Your task to perform on an android device: What's the weather going to be this weekend? Image 0: 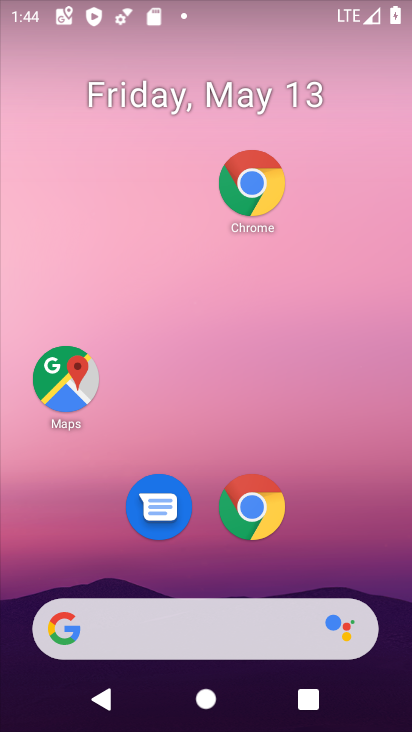
Step 0: click (348, 159)
Your task to perform on an android device: What's the weather going to be this weekend? Image 1: 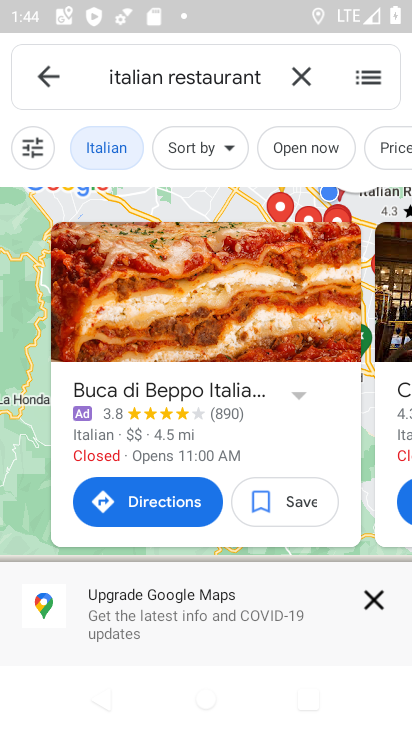
Step 1: click (42, 75)
Your task to perform on an android device: What's the weather going to be this weekend? Image 2: 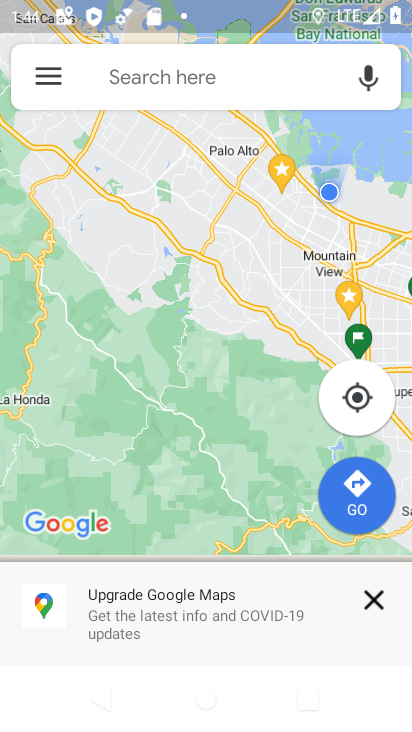
Step 2: press home button
Your task to perform on an android device: What's the weather going to be this weekend? Image 3: 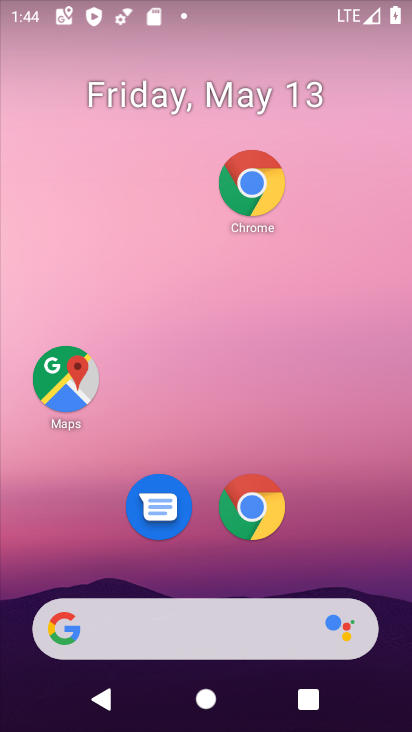
Step 3: drag from (38, 178) to (405, 326)
Your task to perform on an android device: What's the weather going to be this weekend? Image 4: 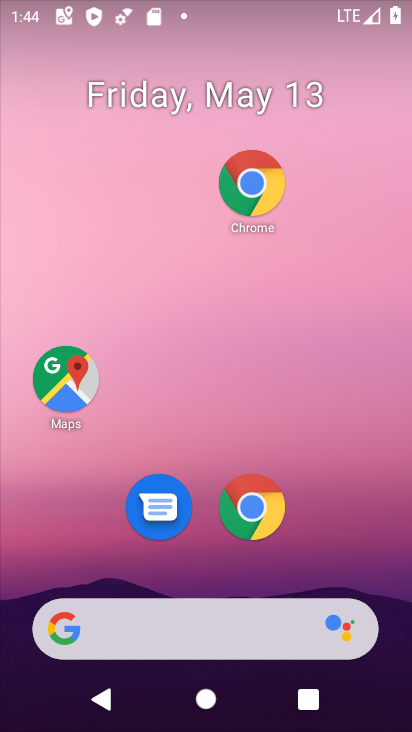
Step 4: drag from (27, 268) to (391, 451)
Your task to perform on an android device: What's the weather going to be this weekend? Image 5: 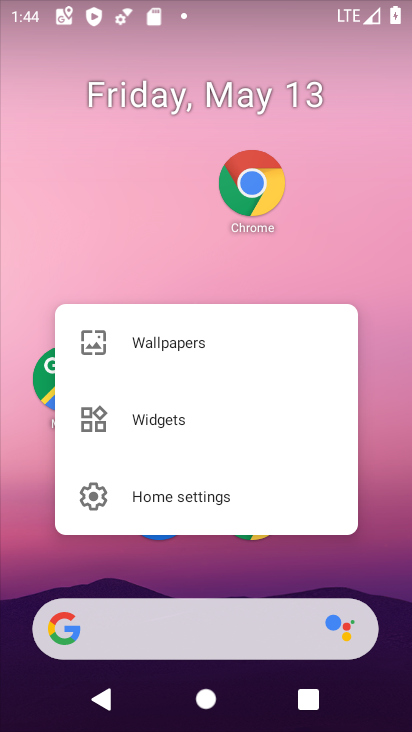
Step 5: drag from (80, 212) to (409, 382)
Your task to perform on an android device: What's the weather going to be this weekend? Image 6: 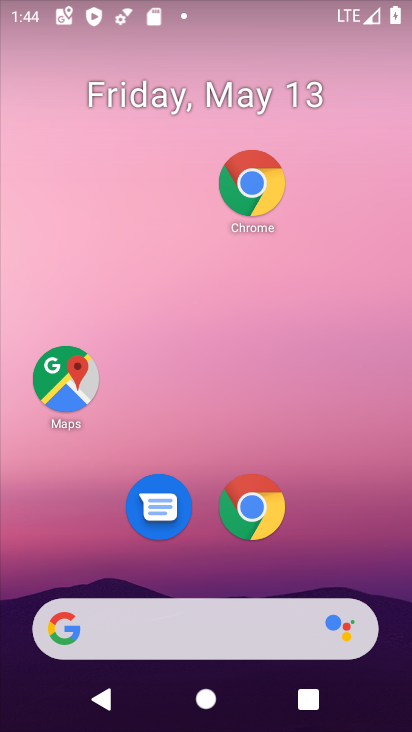
Step 6: drag from (45, 193) to (411, 396)
Your task to perform on an android device: What's the weather going to be this weekend? Image 7: 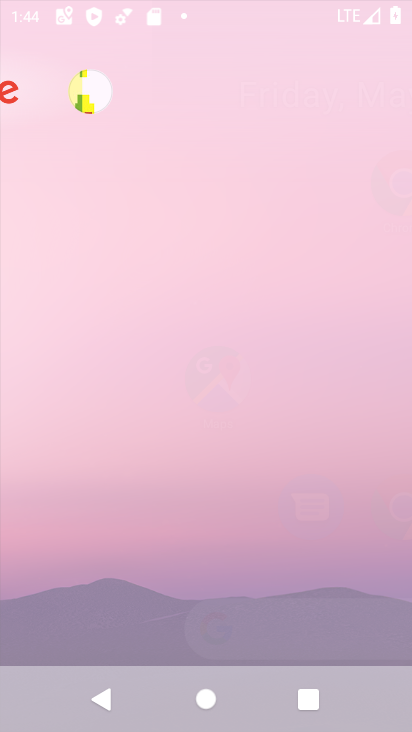
Step 7: drag from (122, 197) to (365, 291)
Your task to perform on an android device: What's the weather going to be this weekend? Image 8: 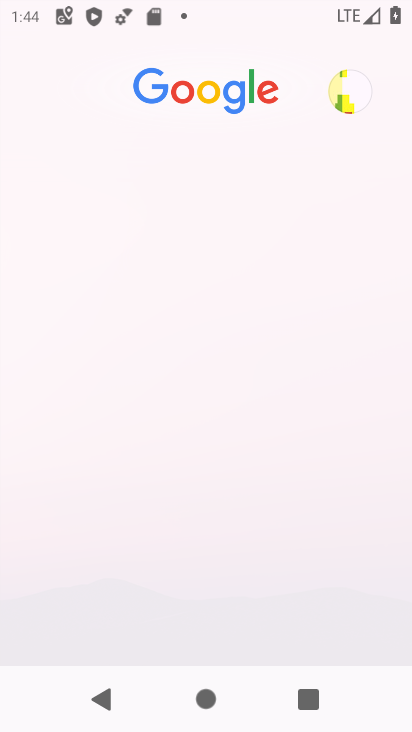
Step 8: click (343, 403)
Your task to perform on an android device: What's the weather going to be this weekend? Image 9: 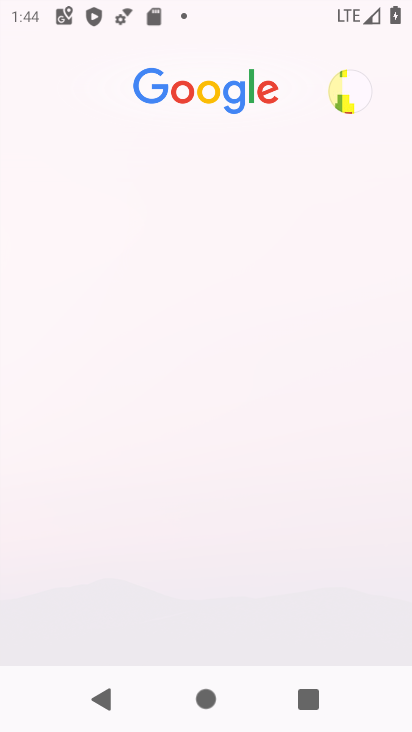
Step 9: click (385, 440)
Your task to perform on an android device: What's the weather going to be this weekend? Image 10: 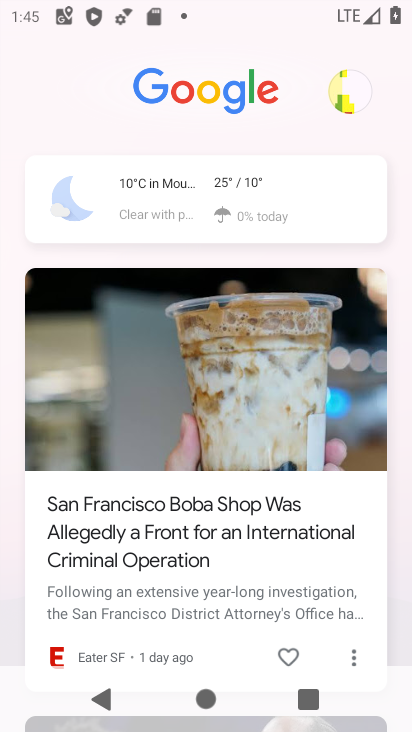
Step 10: drag from (194, 507) to (192, 347)
Your task to perform on an android device: What's the weather going to be this weekend? Image 11: 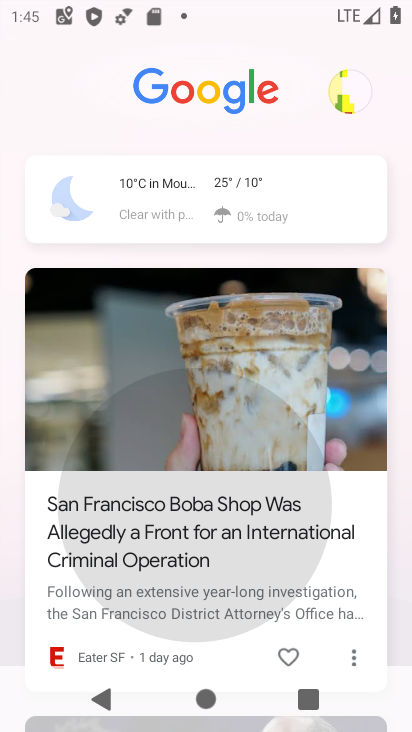
Step 11: drag from (232, 430) to (229, 297)
Your task to perform on an android device: What's the weather going to be this weekend? Image 12: 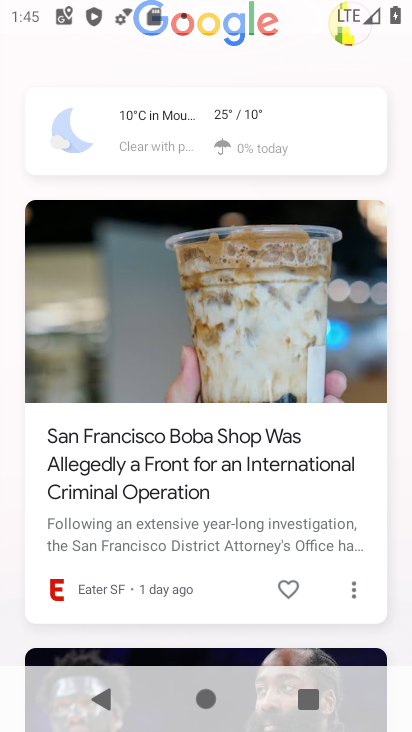
Step 12: click (246, 199)
Your task to perform on an android device: What's the weather going to be this weekend? Image 13: 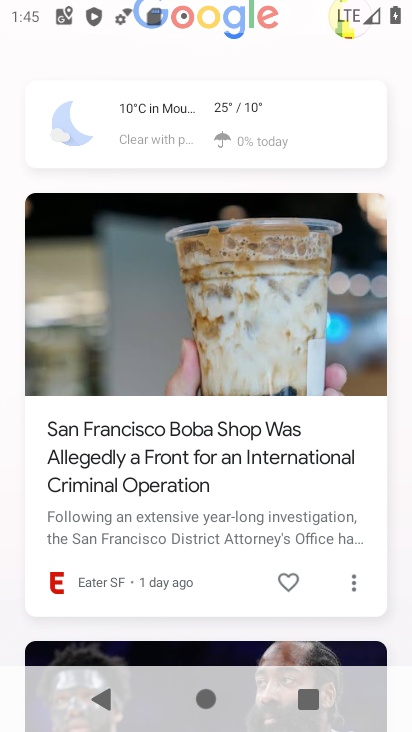
Step 13: click (205, 323)
Your task to perform on an android device: What's the weather going to be this weekend? Image 14: 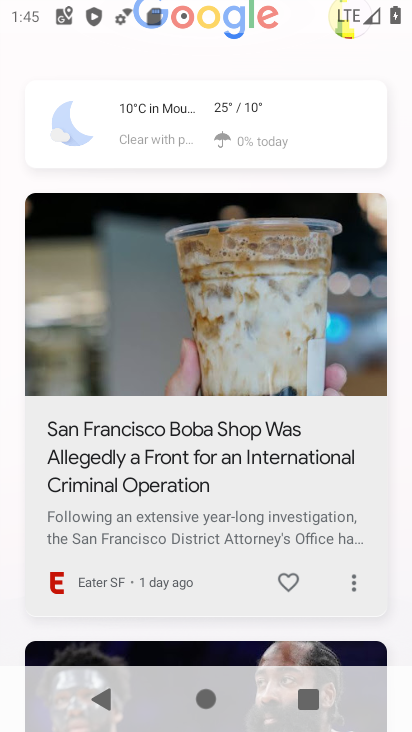
Step 14: click (256, 307)
Your task to perform on an android device: What's the weather going to be this weekend? Image 15: 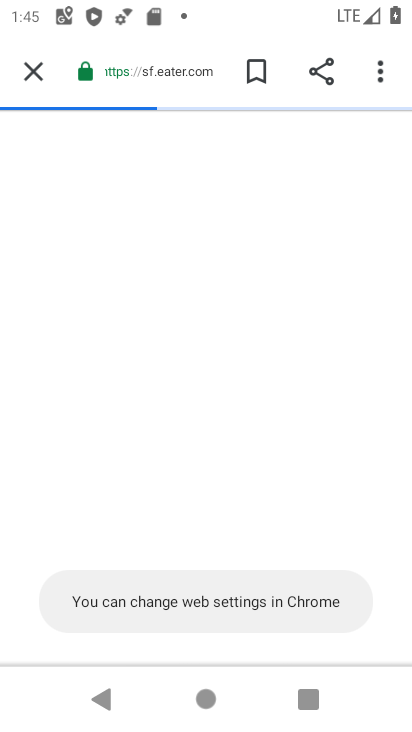
Step 15: task complete